Your task to perform on an android device: Open settings on Google Maps Image 0: 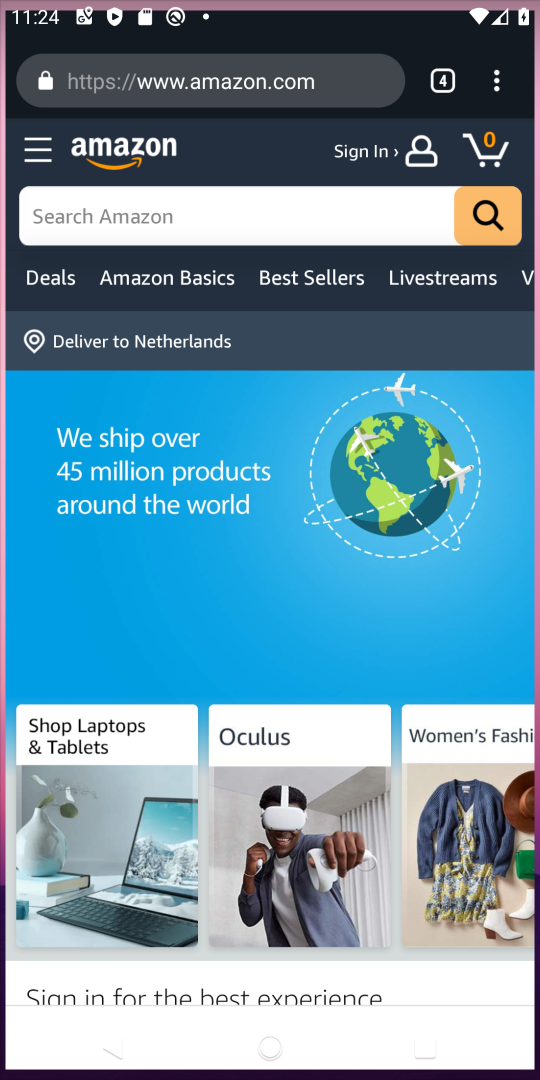
Step 0: drag from (284, 103) to (267, 422)
Your task to perform on an android device: Open settings on Google Maps Image 1: 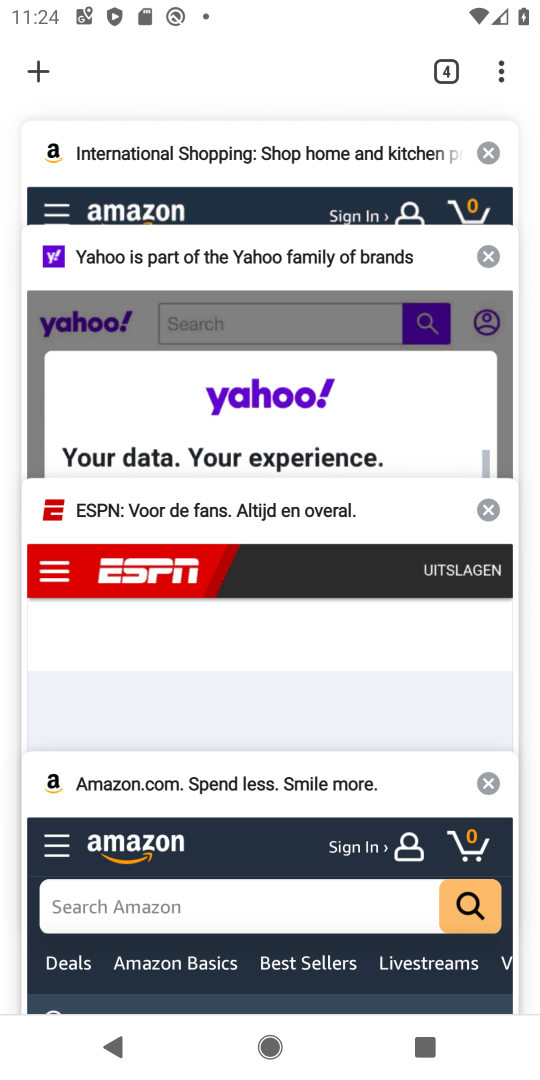
Step 1: press home button
Your task to perform on an android device: Open settings on Google Maps Image 2: 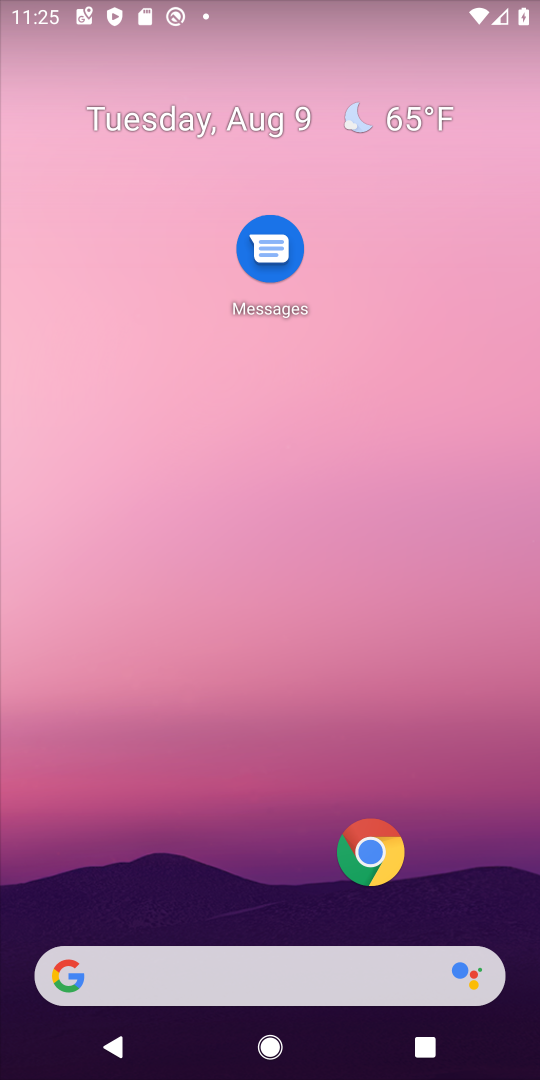
Step 2: drag from (239, 841) to (171, 4)
Your task to perform on an android device: Open settings on Google Maps Image 3: 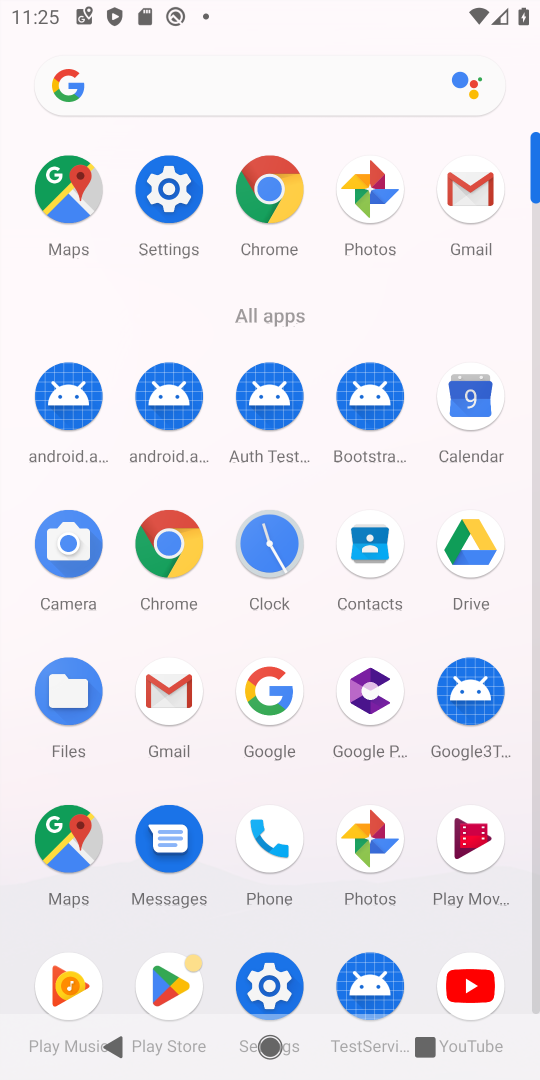
Step 3: click (101, 207)
Your task to perform on an android device: Open settings on Google Maps Image 4: 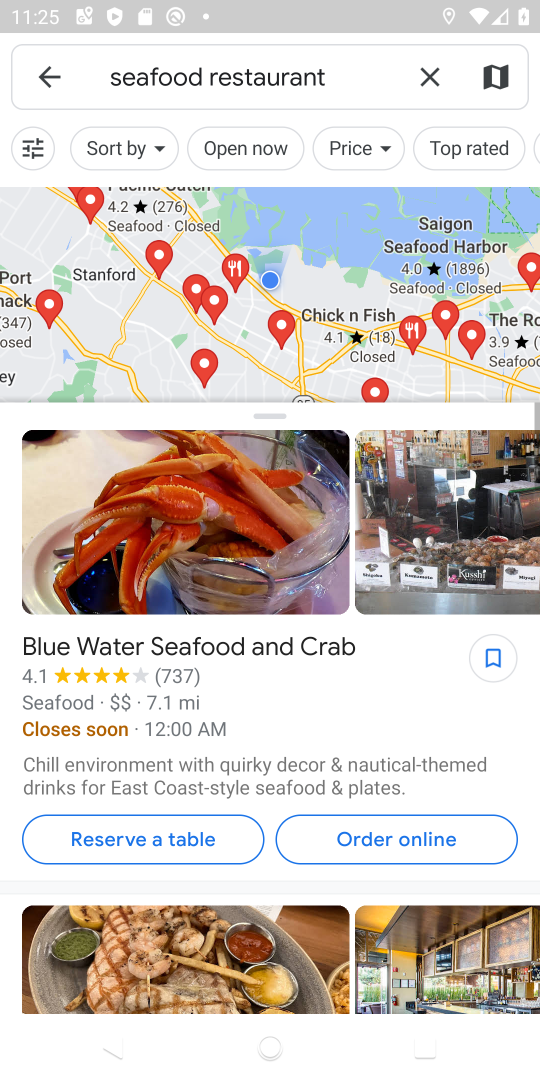
Step 4: click (31, 135)
Your task to perform on an android device: Open settings on Google Maps Image 5: 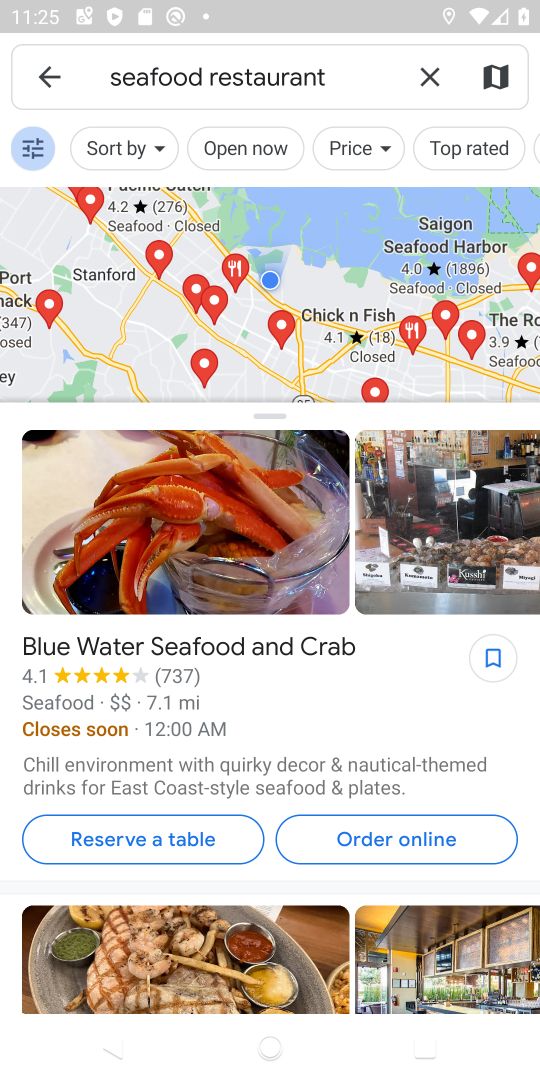
Step 5: click (31, 135)
Your task to perform on an android device: Open settings on Google Maps Image 6: 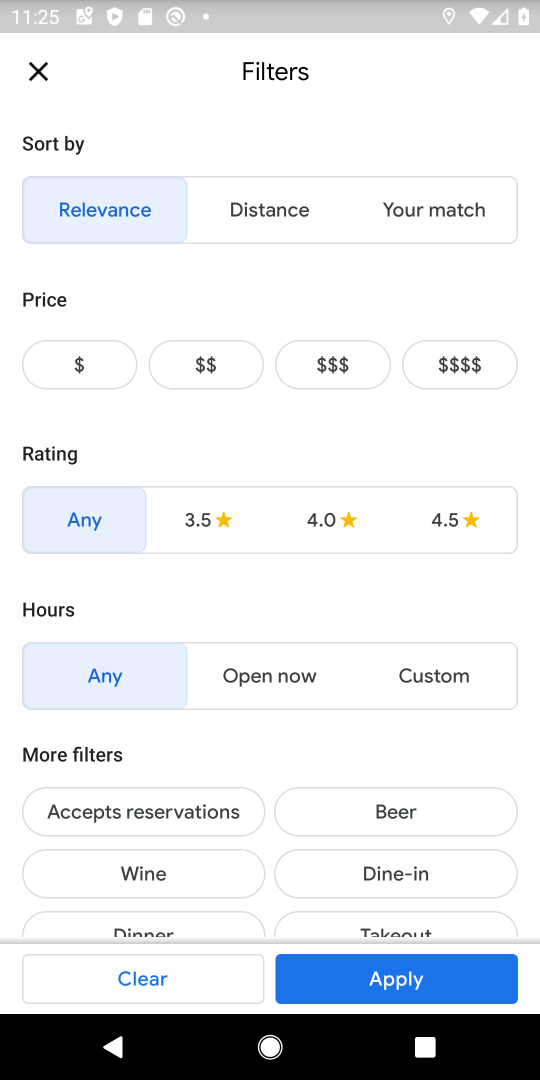
Step 6: click (39, 65)
Your task to perform on an android device: Open settings on Google Maps Image 7: 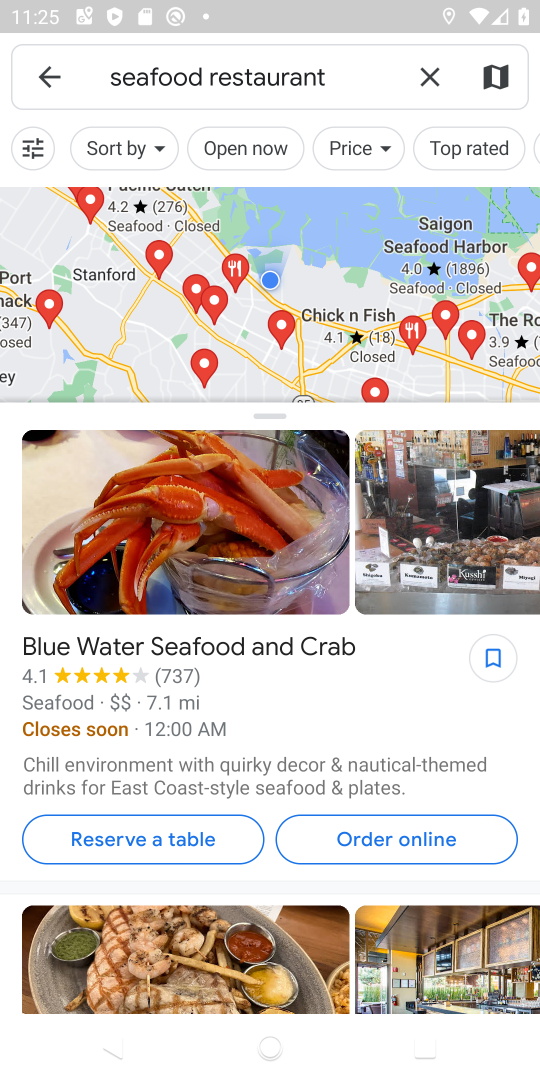
Step 7: click (39, 65)
Your task to perform on an android device: Open settings on Google Maps Image 8: 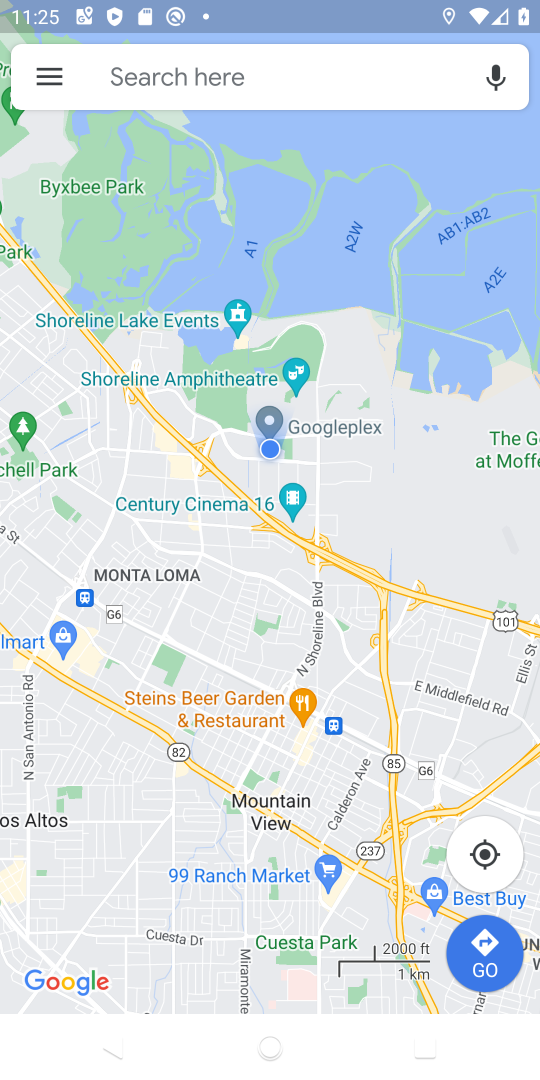
Step 8: click (34, 74)
Your task to perform on an android device: Open settings on Google Maps Image 9: 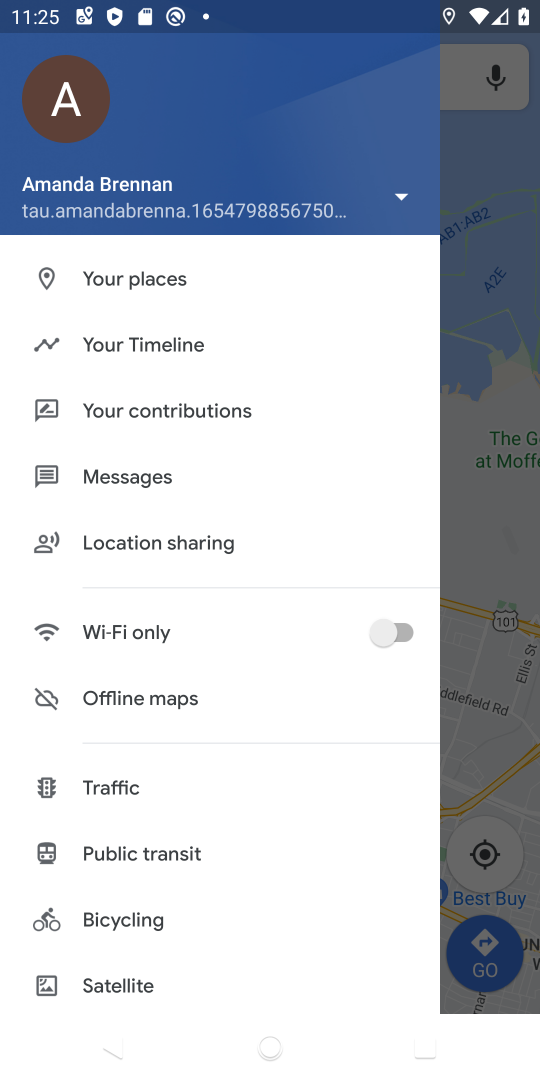
Step 9: drag from (153, 991) to (115, 573)
Your task to perform on an android device: Open settings on Google Maps Image 10: 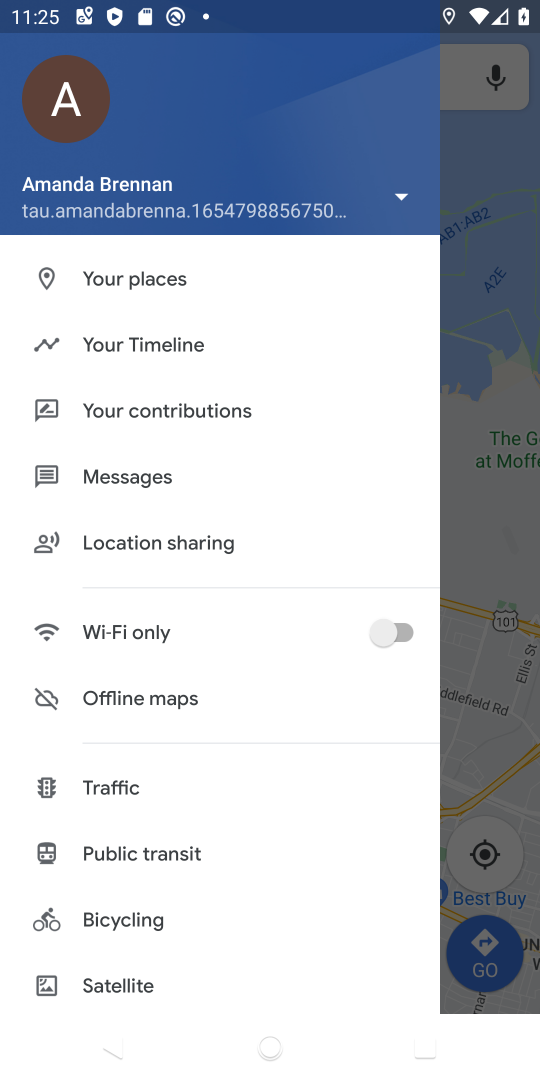
Step 10: drag from (202, 987) to (274, 215)
Your task to perform on an android device: Open settings on Google Maps Image 11: 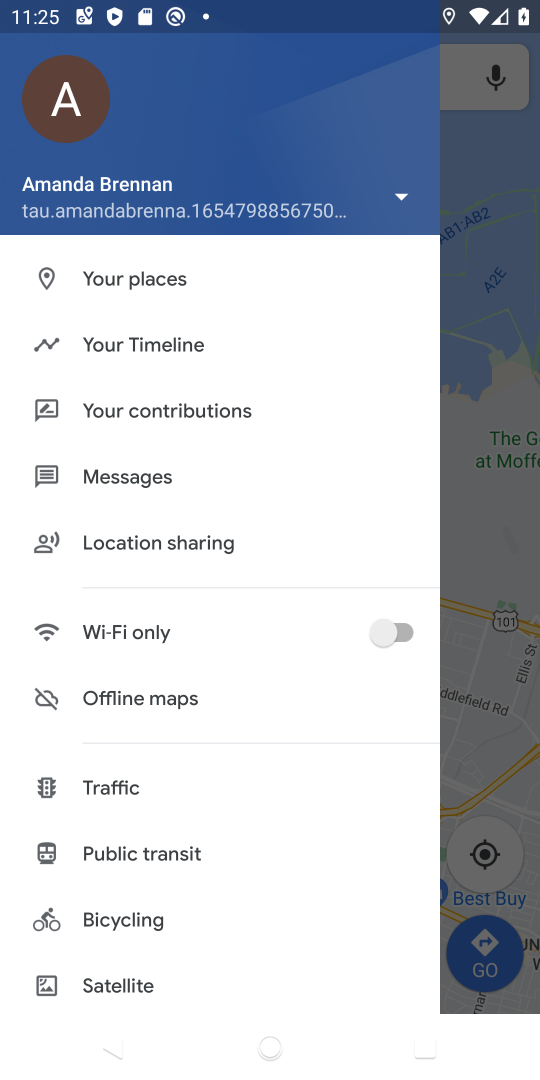
Step 11: click (185, 923)
Your task to perform on an android device: Open settings on Google Maps Image 12: 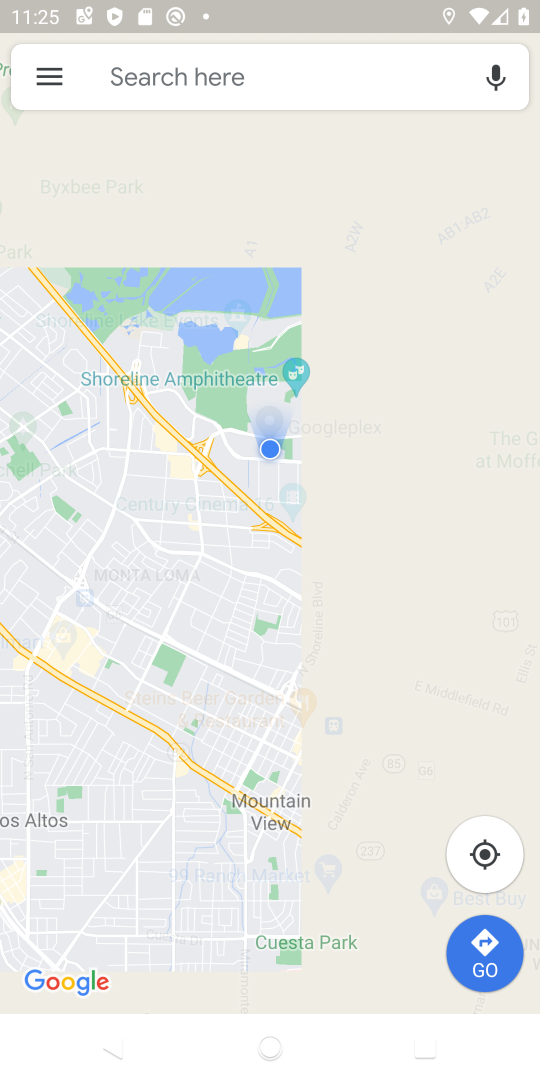
Step 12: drag from (203, 978) to (204, 414)
Your task to perform on an android device: Open settings on Google Maps Image 13: 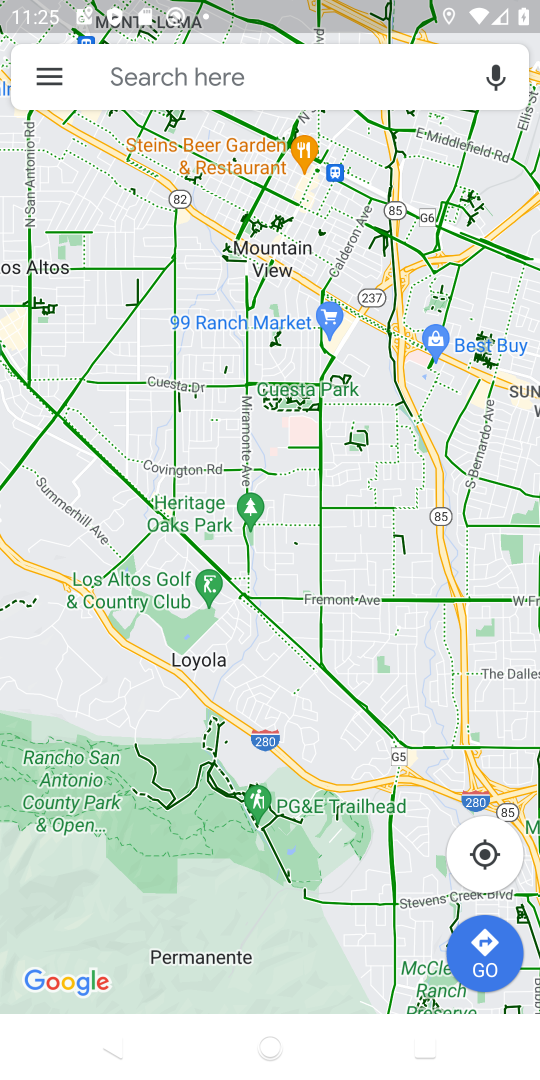
Step 13: click (54, 84)
Your task to perform on an android device: Open settings on Google Maps Image 14: 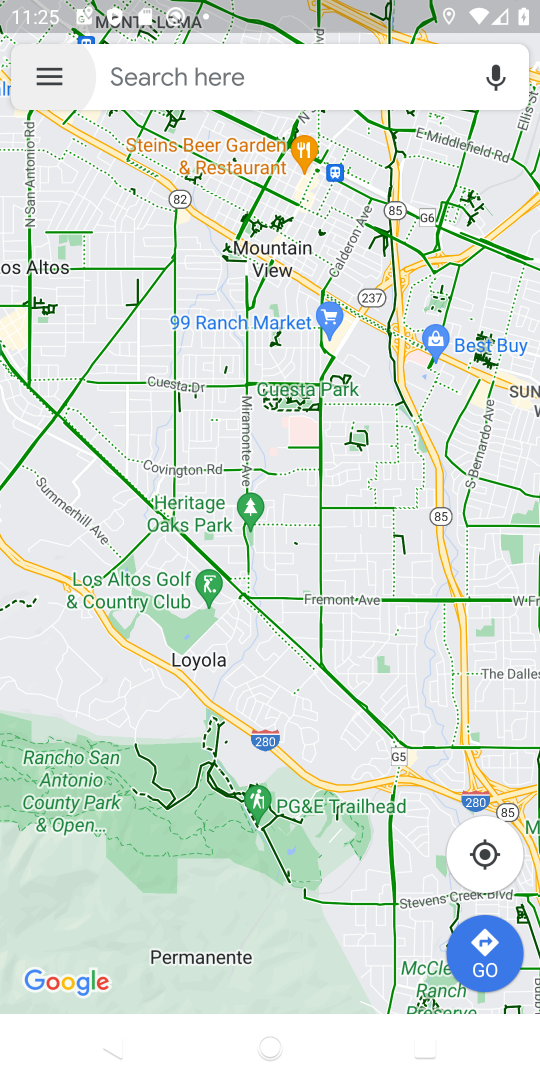
Step 14: click (54, 84)
Your task to perform on an android device: Open settings on Google Maps Image 15: 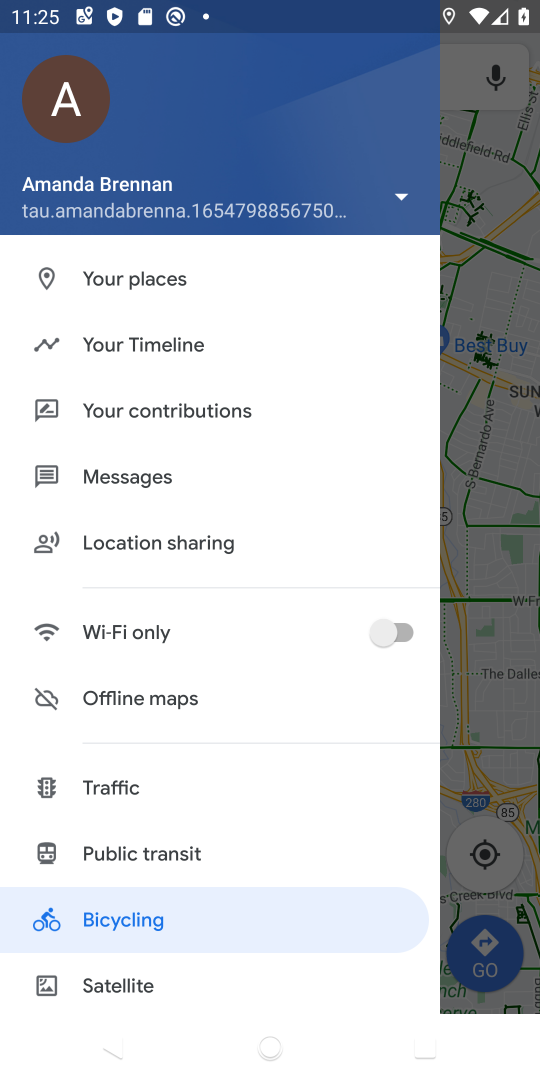
Step 15: drag from (256, 821) to (258, 182)
Your task to perform on an android device: Open settings on Google Maps Image 16: 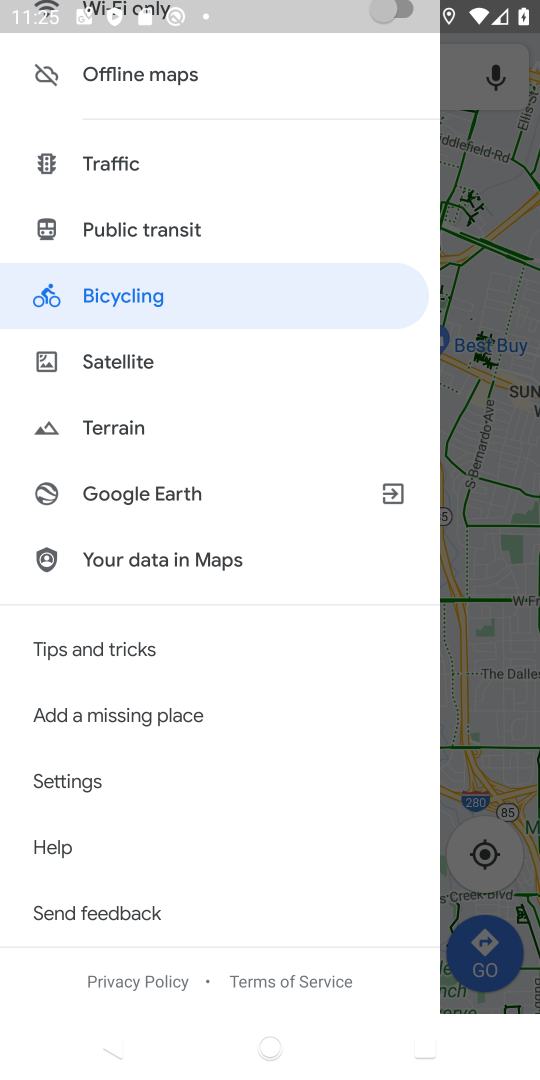
Step 16: click (120, 782)
Your task to perform on an android device: Open settings on Google Maps Image 17: 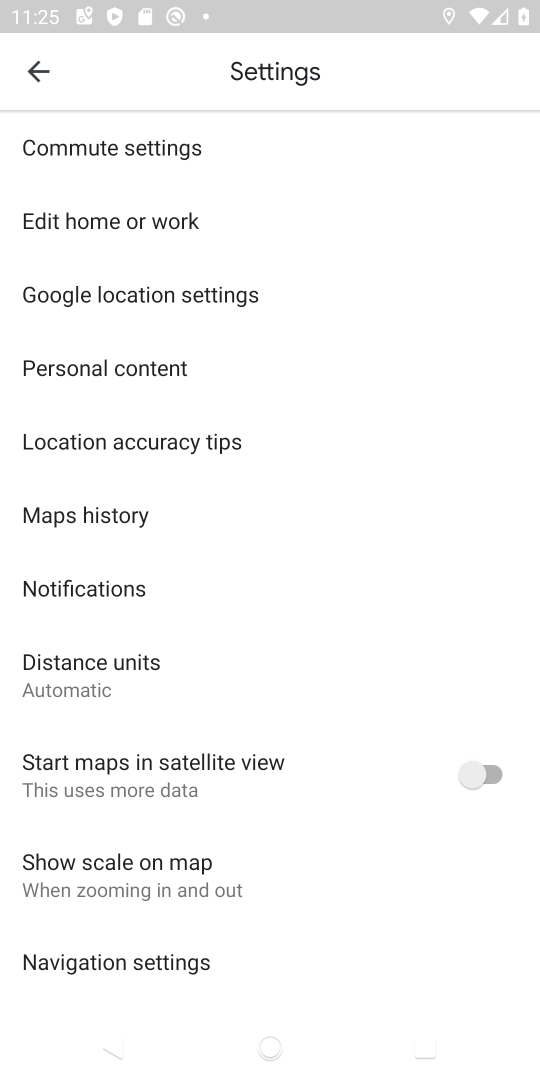
Step 17: task complete